Your task to perform on an android device: turn pop-ups on in chrome Image 0: 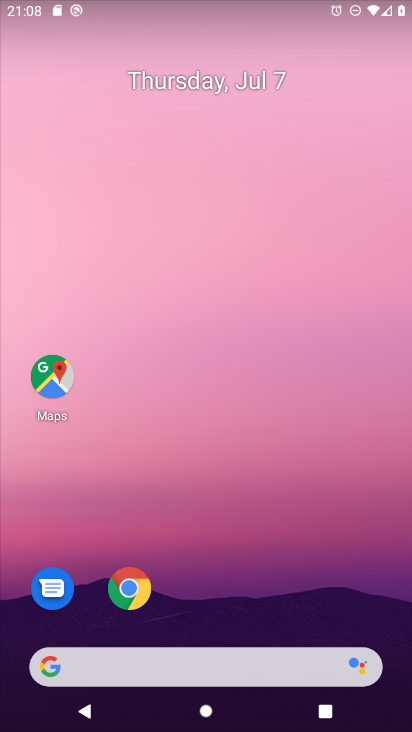
Step 0: drag from (283, 583) to (263, 233)
Your task to perform on an android device: turn pop-ups on in chrome Image 1: 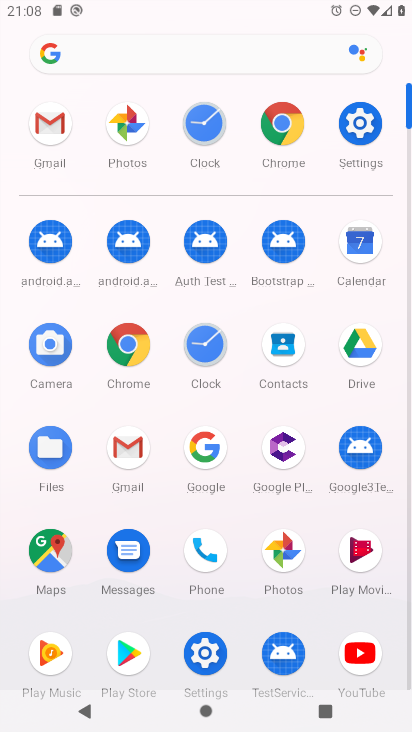
Step 1: click (282, 111)
Your task to perform on an android device: turn pop-ups on in chrome Image 2: 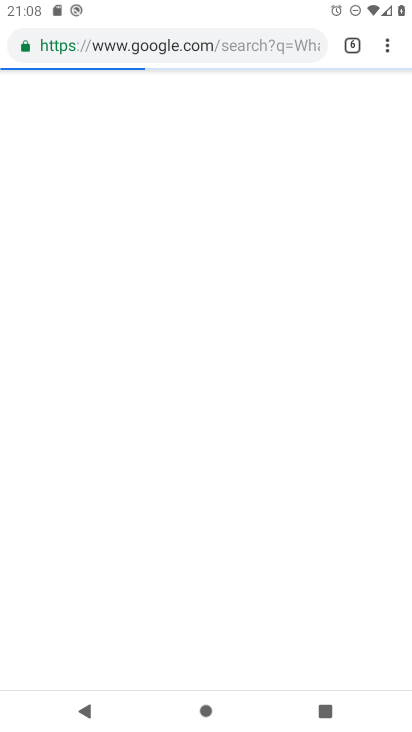
Step 2: click (388, 41)
Your task to perform on an android device: turn pop-ups on in chrome Image 3: 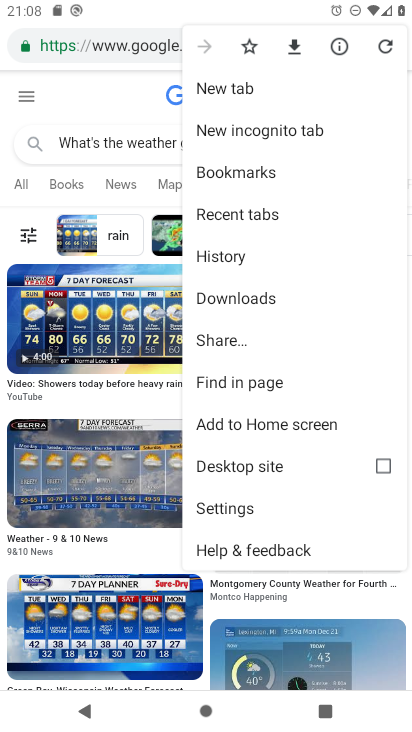
Step 3: click (252, 504)
Your task to perform on an android device: turn pop-ups on in chrome Image 4: 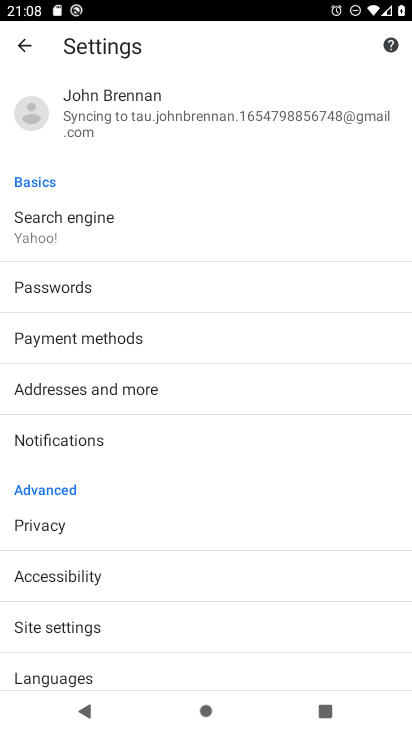
Step 4: drag from (194, 654) to (250, 316)
Your task to perform on an android device: turn pop-ups on in chrome Image 5: 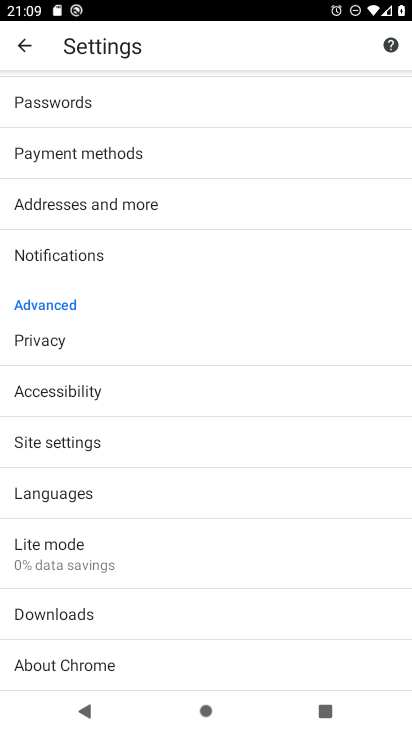
Step 5: click (151, 434)
Your task to perform on an android device: turn pop-ups on in chrome Image 6: 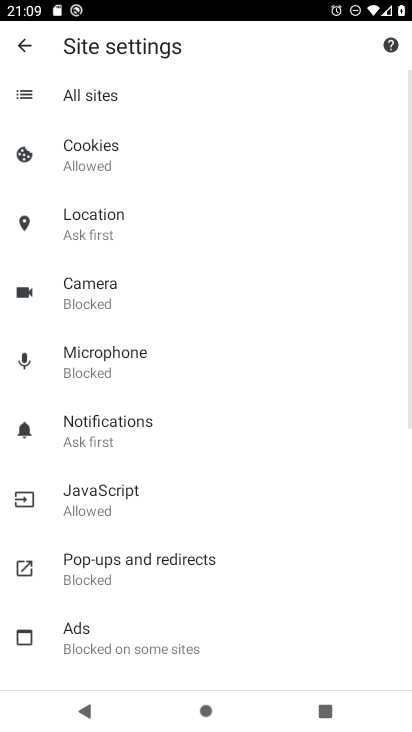
Step 6: click (191, 566)
Your task to perform on an android device: turn pop-ups on in chrome Image 7: 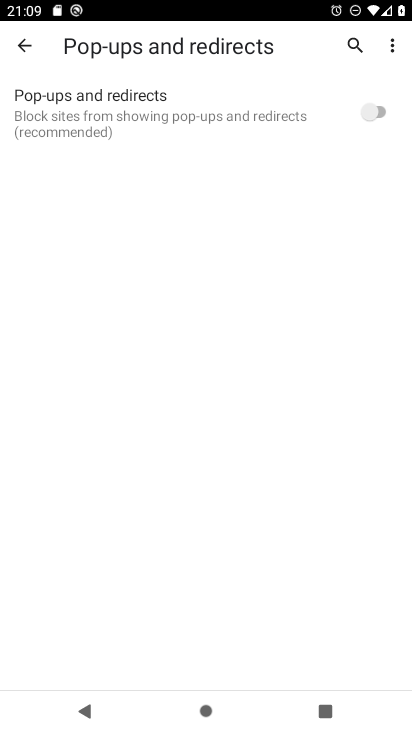
Step 7: task complete